Your task to perform on an android device: see creations saved in the google photos Image 0: 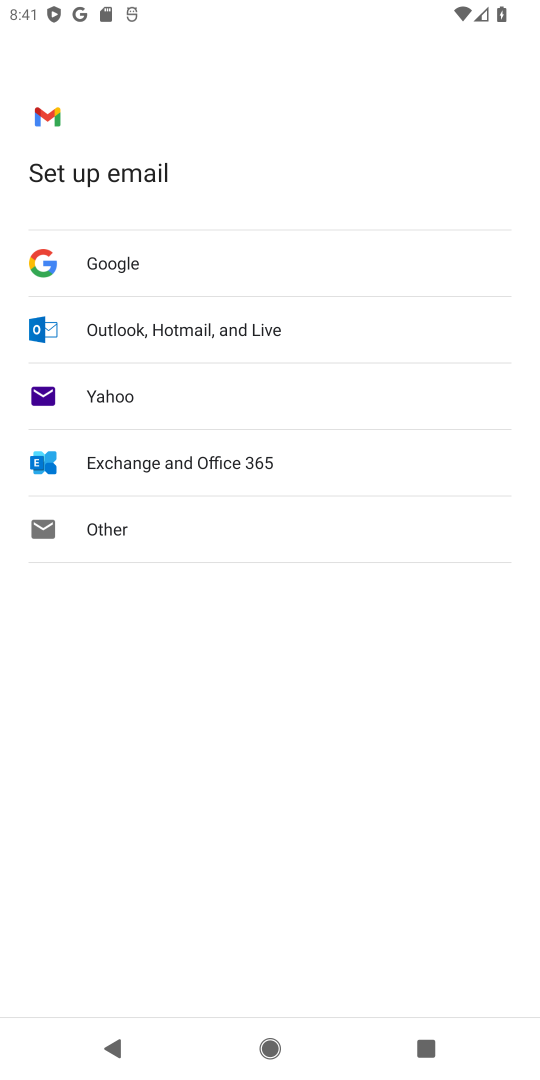
Step 0: press home button
Your task to perform on an android device: see creations saved in the google photos Image 1: 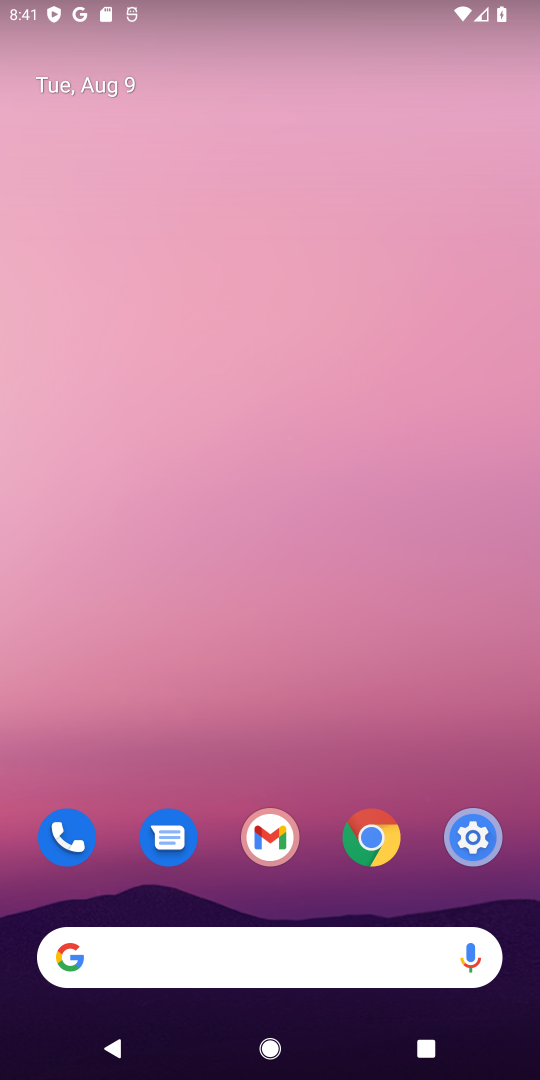
Step 1: drag from (219, 813) to (211, 138)
Your task to perform on an android device: see creations saved in the google photos Image 2: 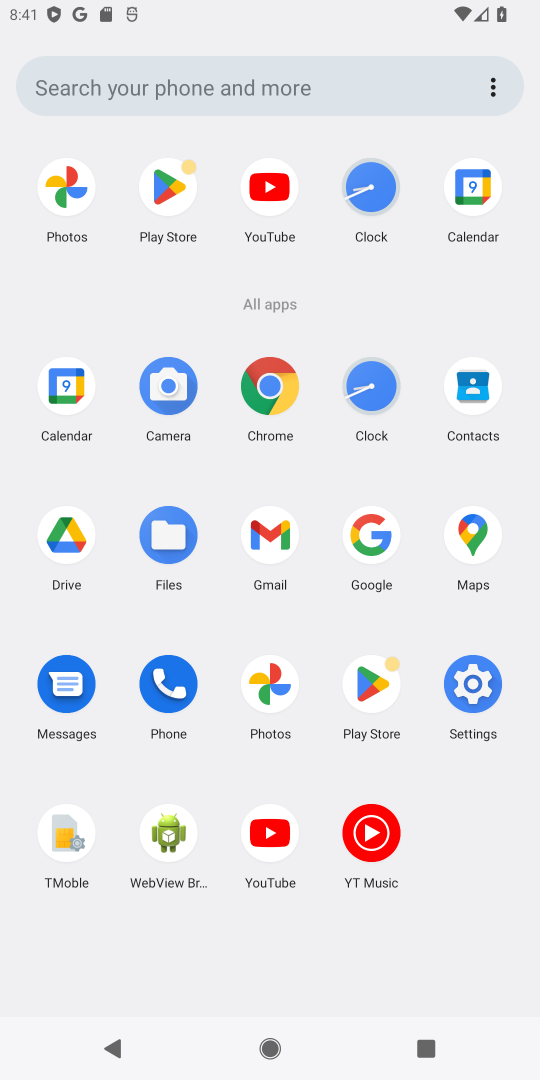
Step 2: click (282, 683)
Your task to perform on an android device: see creations saved in the google photos Image 3: 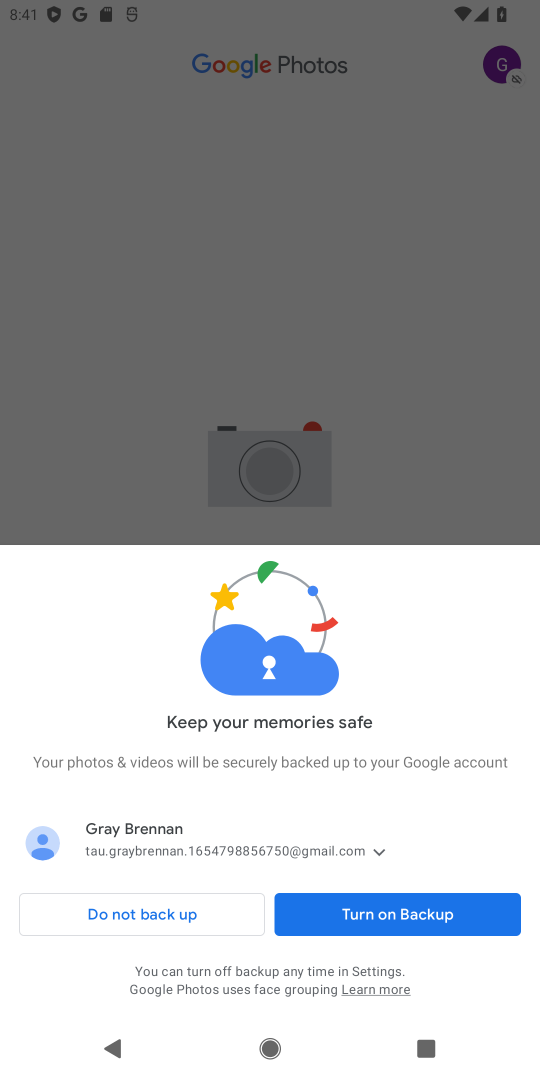
Step 3: click (121, 912)
Your task to perform on an android device: see creations saved in the google photos Image 4: 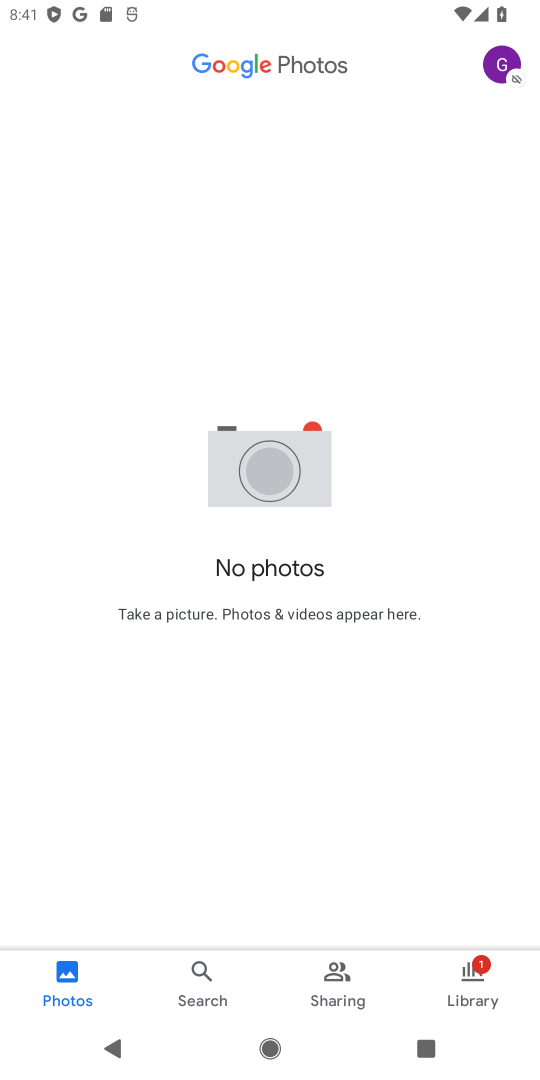
Step 4: click (207, 961)
Your task to perform on an android device: see creations saved in the google photos Image 5: 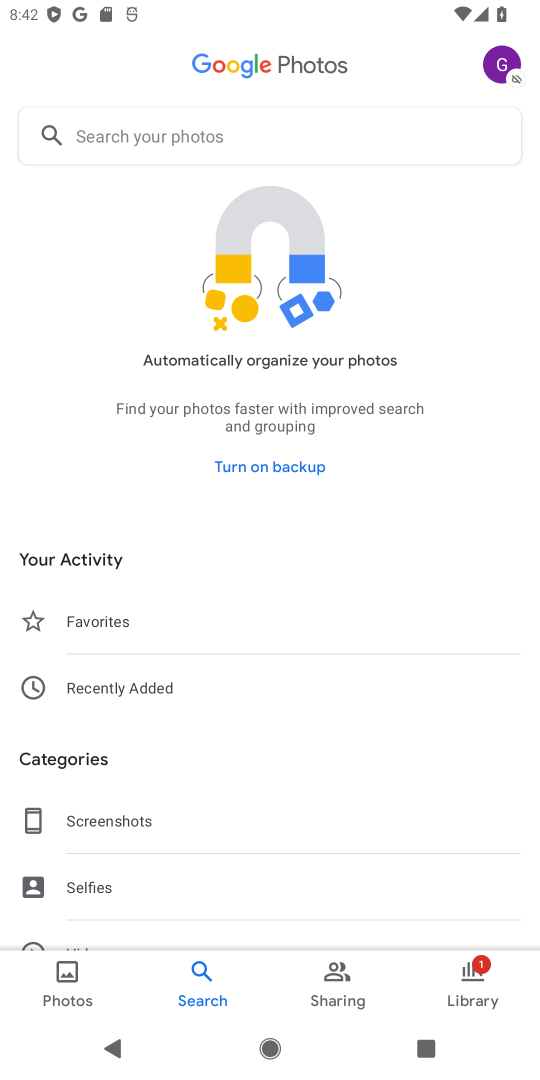
Step 5: drag from (136, 857) to (134, 548)
Your task to perform on an android device: see creations saved in the google photos Image 6: 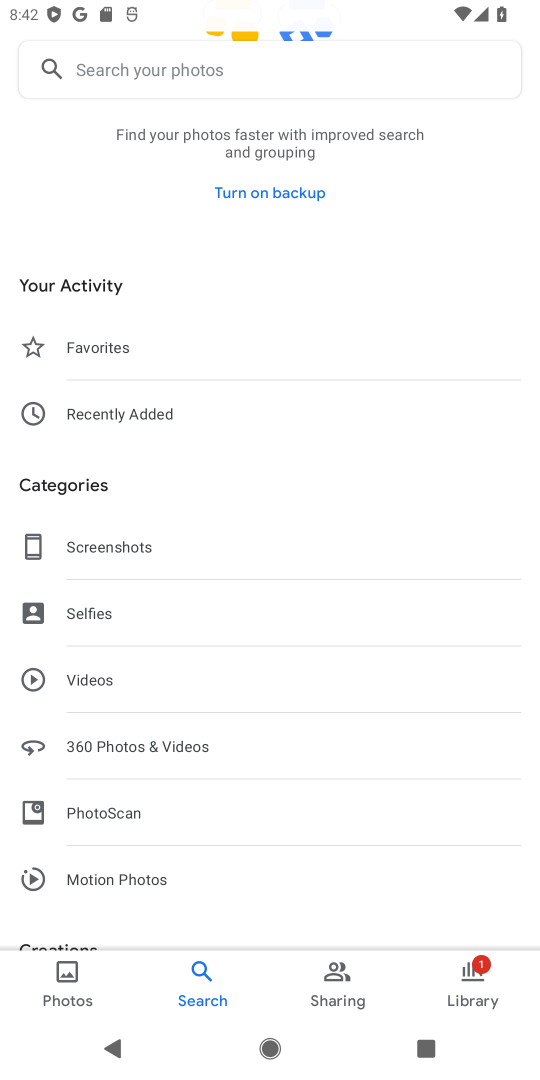
Step 6: drag from (96, 891) to (94, 631)
Your task to perform on an android device: see creations saved in the google photos Image 7: 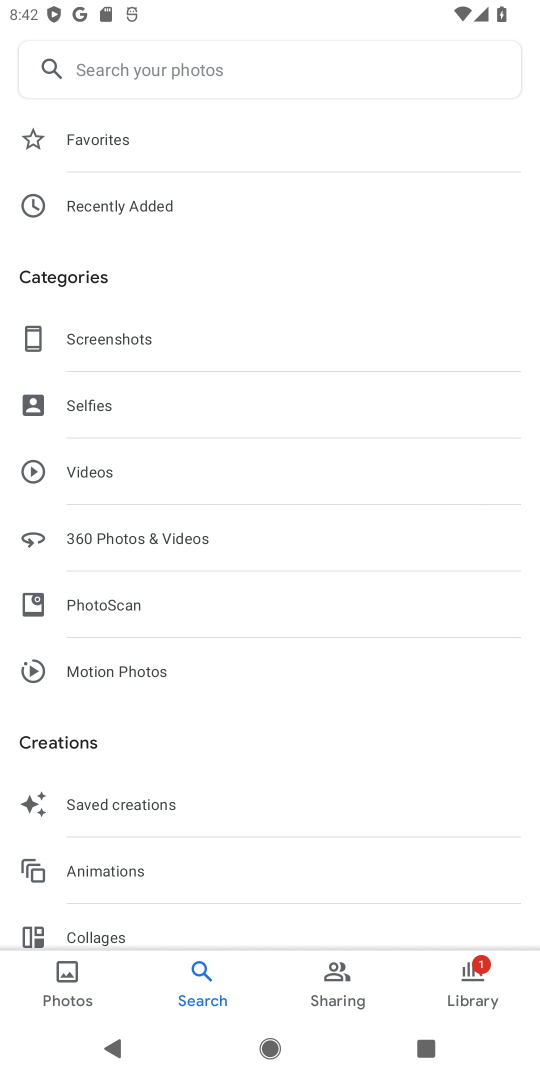
Step 7: click (154, 806)
Your task to perform on an android device: see creations saved in the google photos Image 8: 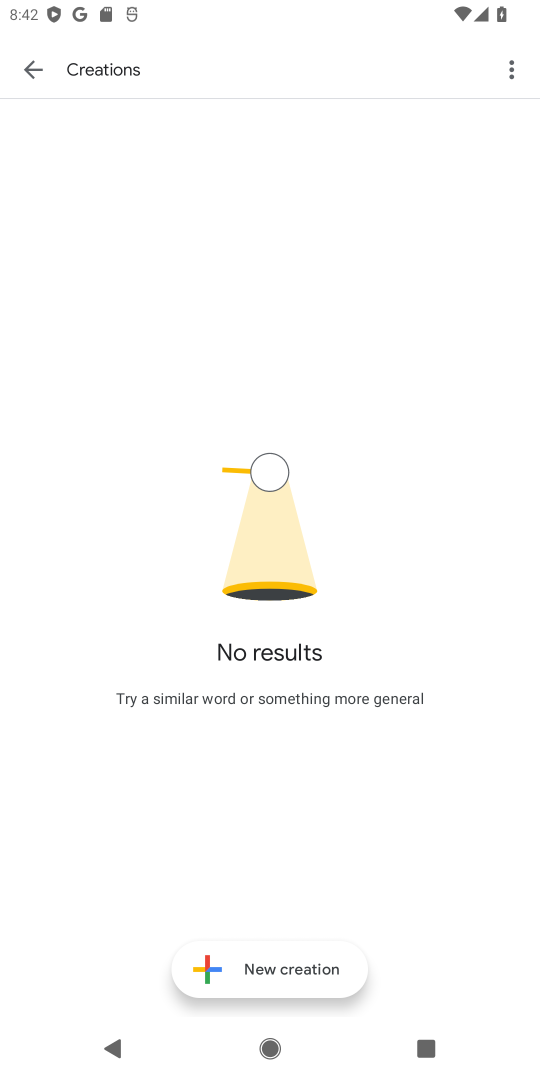
Step 8: task complete